Your task to perform on an android device: check out phone information Image 0: 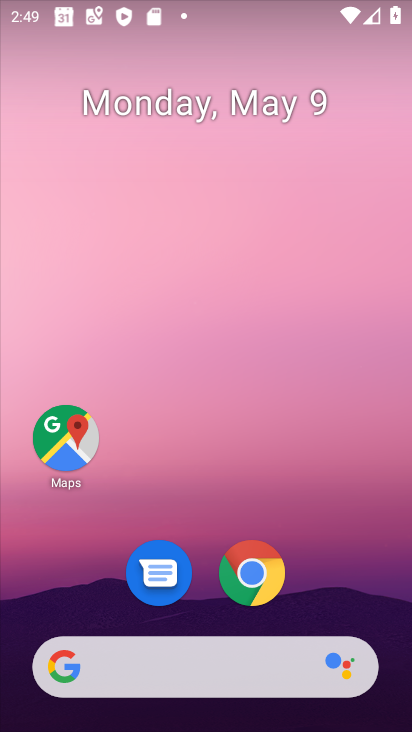
Step 0: drag from (233, 641) to (266, 294)
Your task to perform on an android device: check out phone information Image 1: 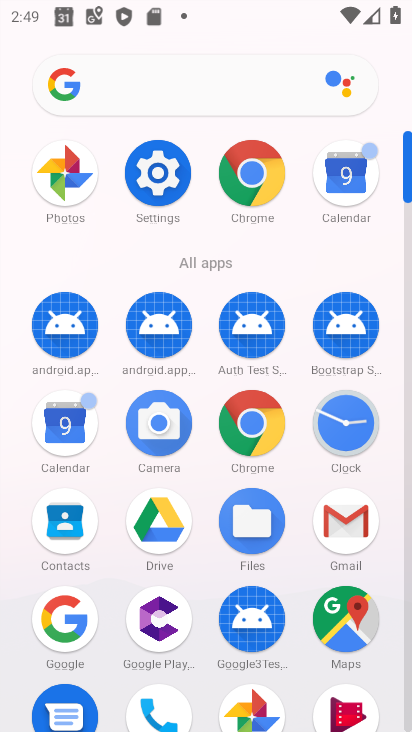
Step 1: drag from (116, 663) to (113, 365)
Your task to perform on an android device: check out phone information Image 2: 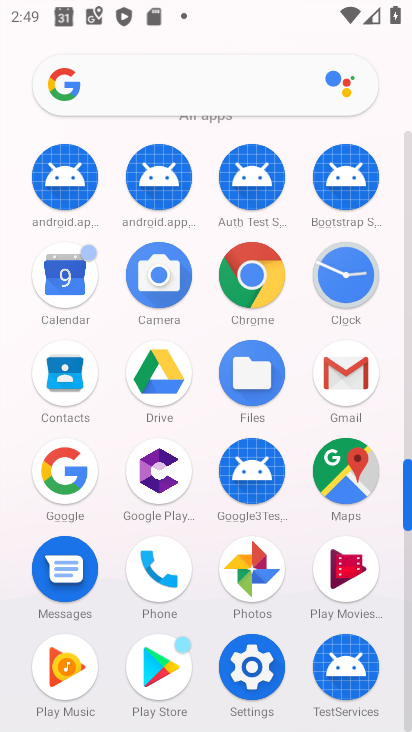
Step 2: click (177, 577)
Your task to perform on an android device: check out phone information Image 3: 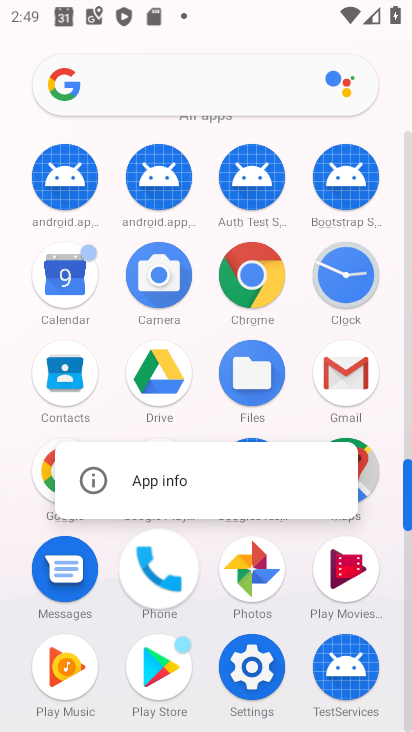
Step 3: click (147, 478)
Your task to perform on an android device: check out phone information Image 4: 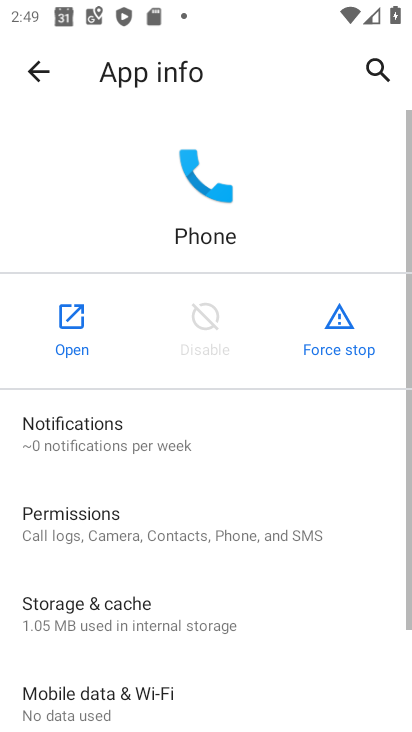
Step 4: drag from (178, 660) to (194, 250)
Your task to perform on an android device: check out phone information Image 5: 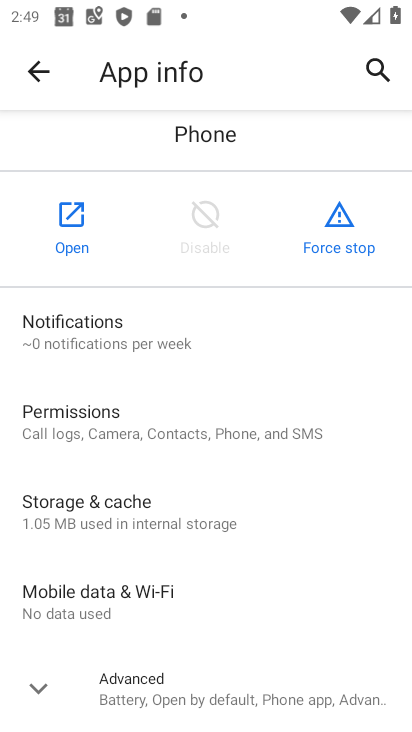
Step 5: click (176, 684)
Your task to perform on an android device: check out phone information Image 6: 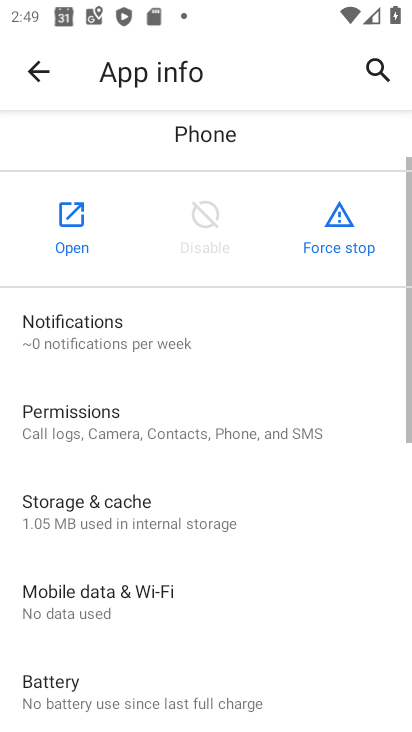
Step 6: task complete